Your task to perform on an android device: turn on data saver in the chrome app Image 0: 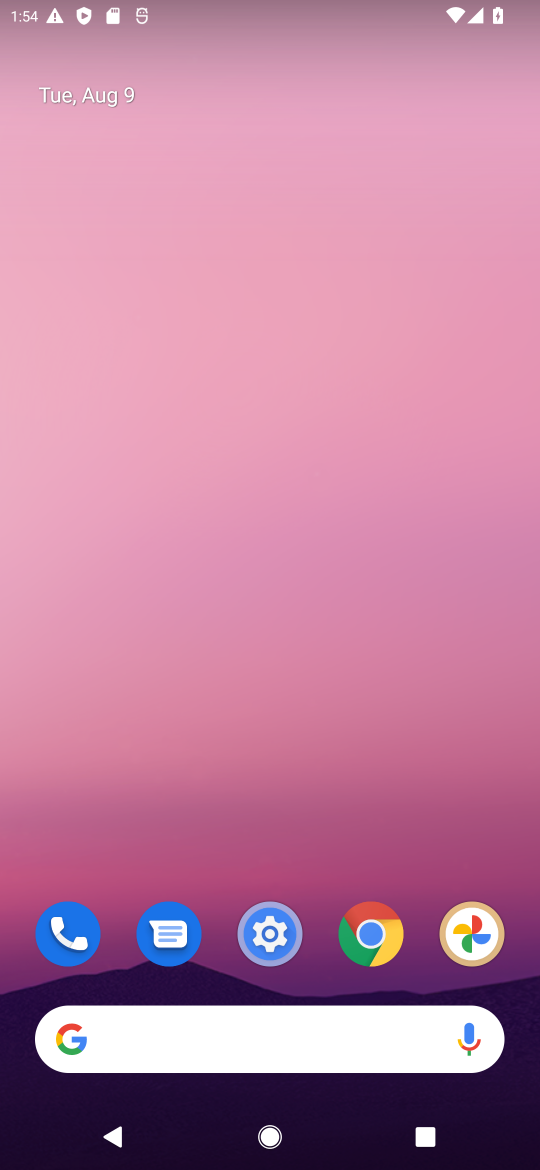
Step 0: click (350, 927)
Your task to perform on an android device: turn on data saver in the chrome app Image 1: 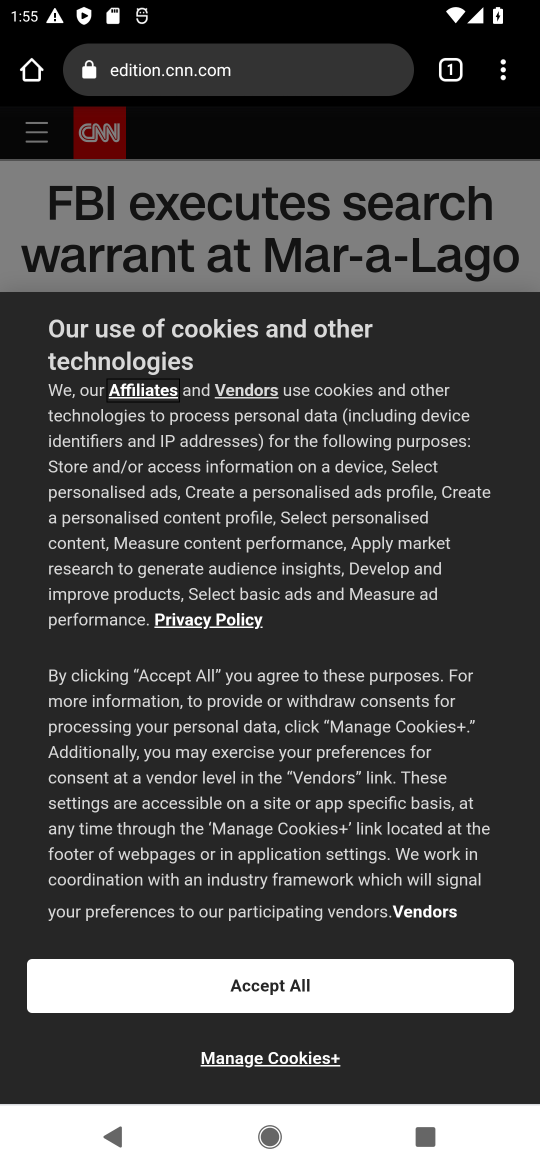
Step 1: click (522, 78)
Your task to perform on an android device: turn on data saver in the chrome app Image 2: 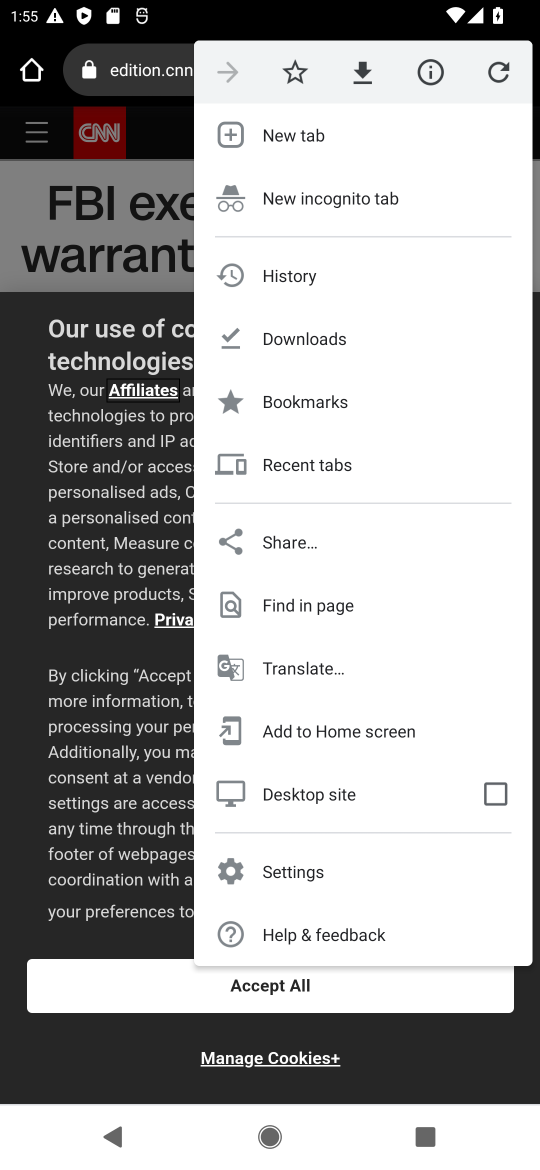
Step 2: click (353, 855)
Your task to perform on an android device: turn on data saver in the chrome app Image 3: 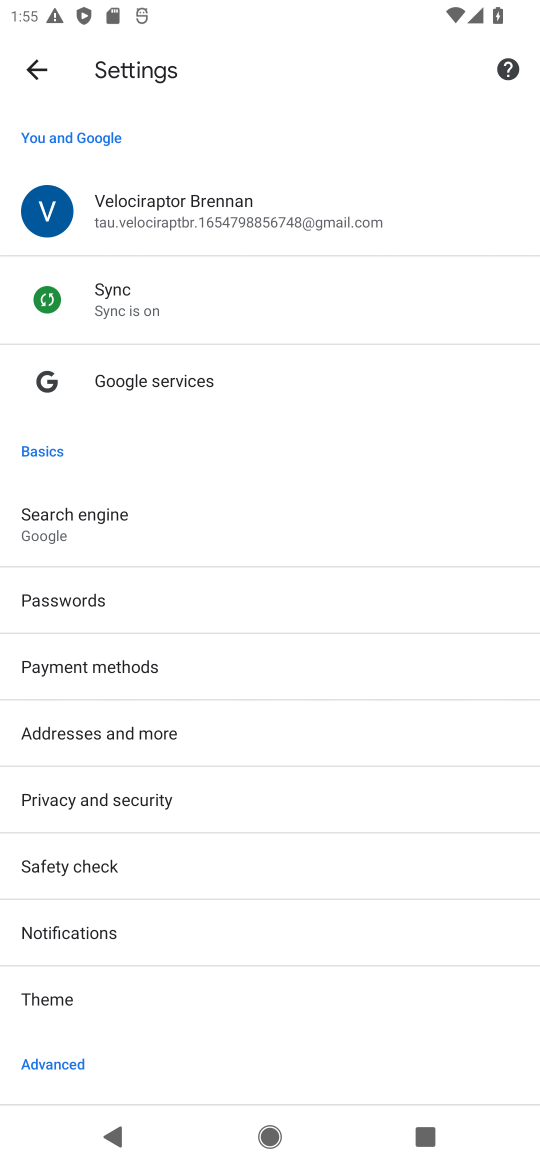
Step 3: drag from (112, 998) to (247, 469)
Your task to perform on an android device: turn on data saver in the chrome app Image 4: 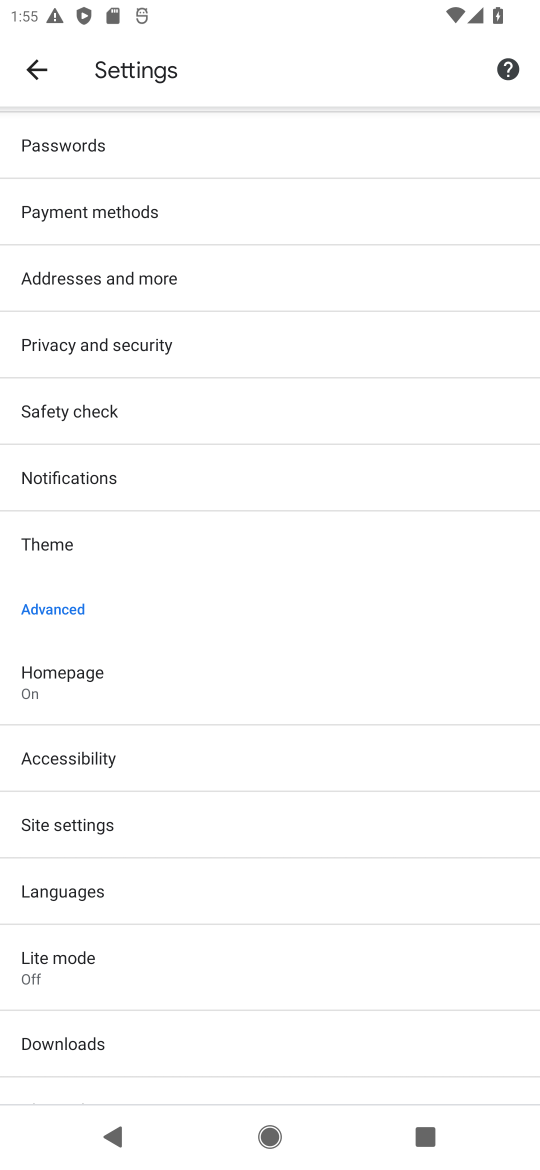
Step 4: click (274, 813)
Your task to perform on an android device: turn on data saver in the chrome app Image 5: 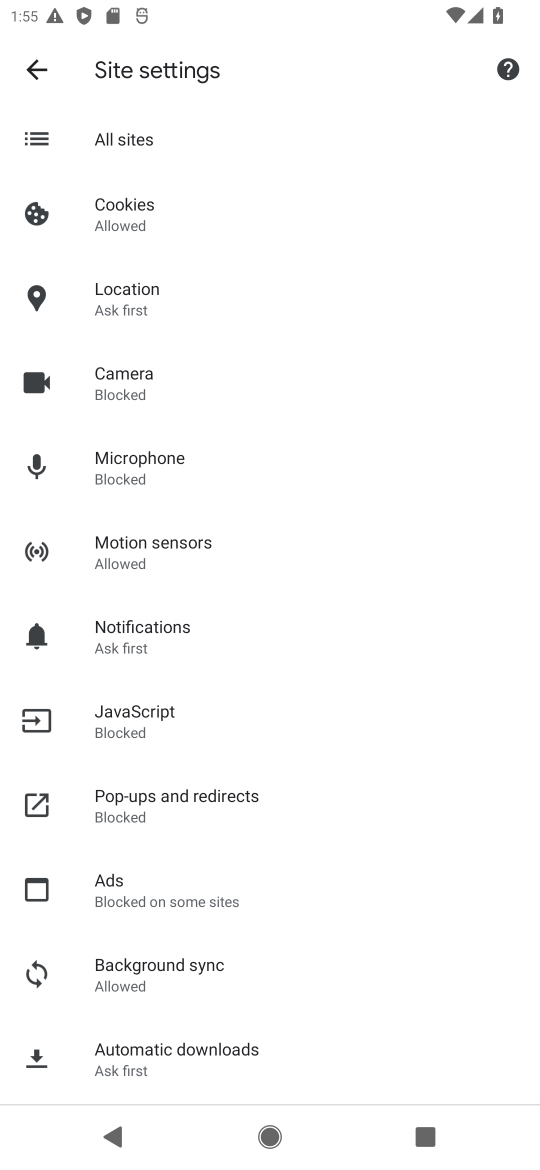
Step 5: task complete